Your task to perform on an android device: Open ESPN.com Image 0: 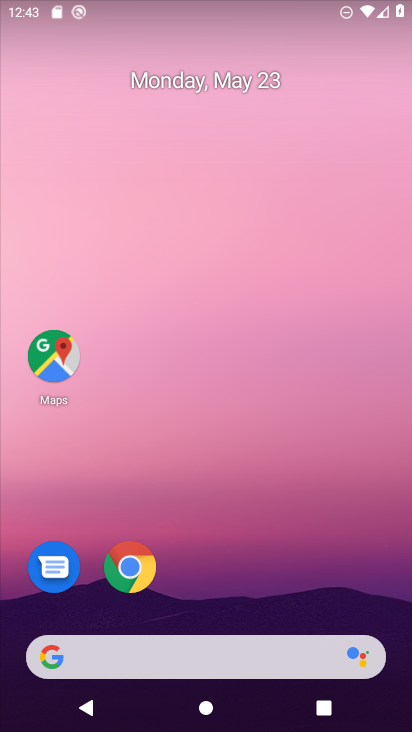
Step 0: click (139, 562)
Your task to perform on an android device: Open ESPN.com Image 1: 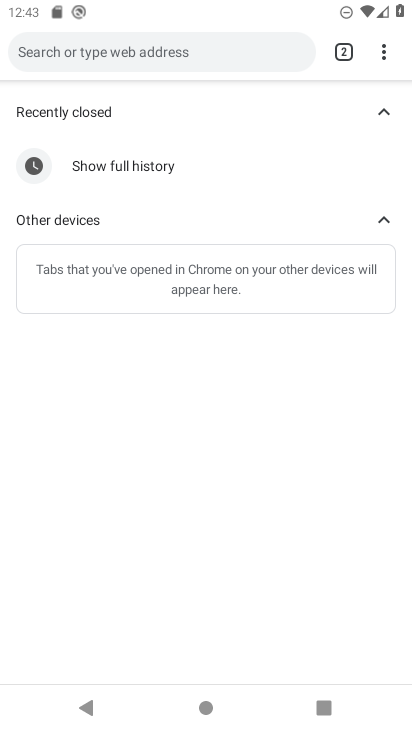
Step 1: click (340, 55)
Your task to perform on an android device: Open ESPN.com Image 2: 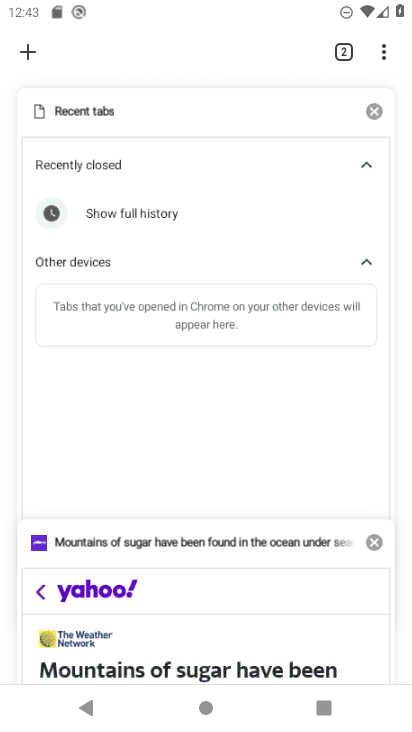
Step 2: click (28, 55)
Your task to perform on an android device: Open ESPN.com Image 3: 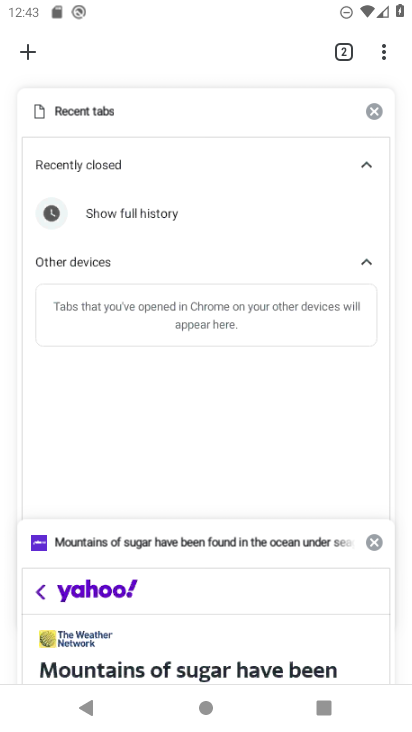
Step 3: click (20, 54)
Your task to perform on an android device: Open ESPN.com Image 4: 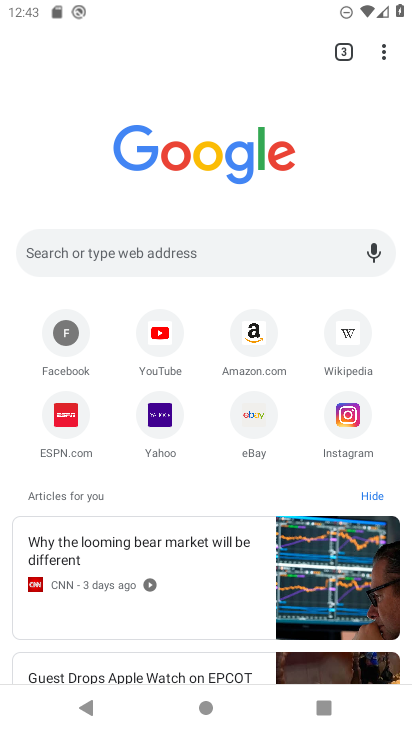
Step 4: click (62, 429)
Your task to perform on an android device: Open ESPN.com Image 5: 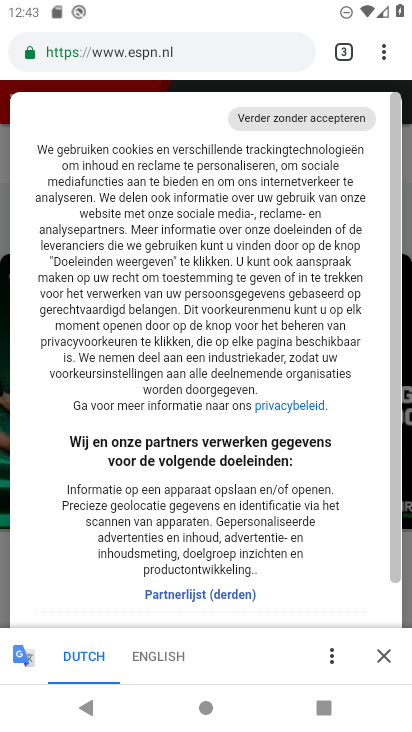
Step 5: task complete